Your task to perform on an android device: turn off javascript in the chrome app Image 0: 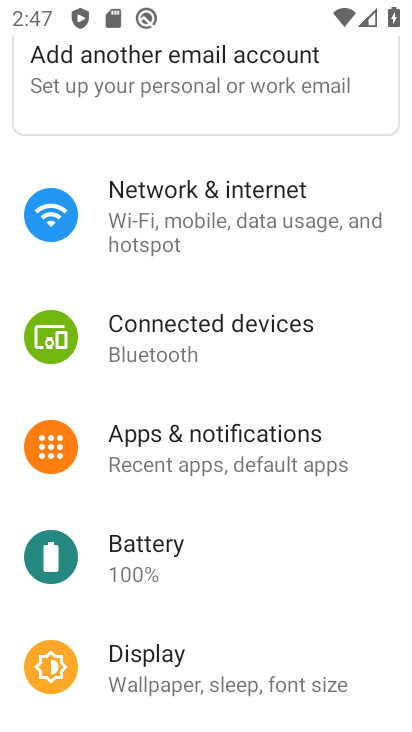
Step 0: press home button
Your task to perform on an android device: turn off javascript in the chrome app Image 1: 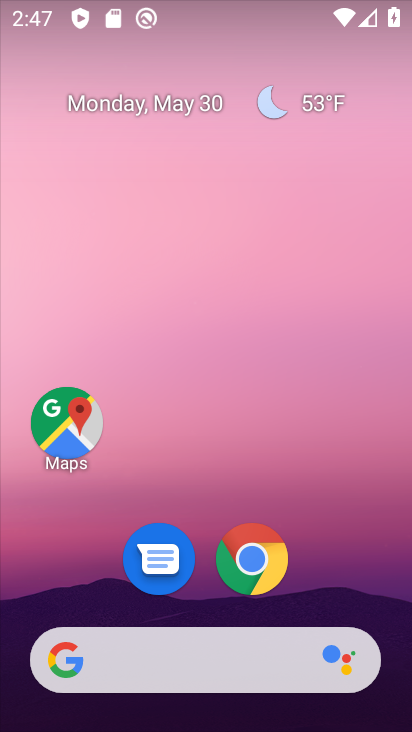
Step 1: click (238, 560)
Your task to perform on an android device: turn off javascript in the chrome app Image 2: 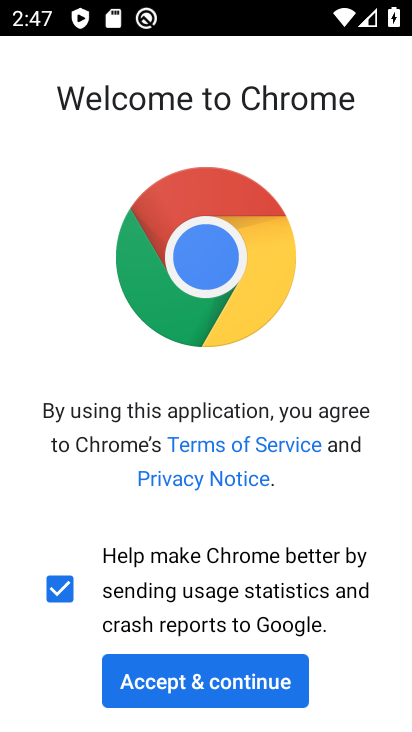
Step 2: click (198, 692)
Your task to perform on an android device: turn off javascript in the chrome app Image 3: 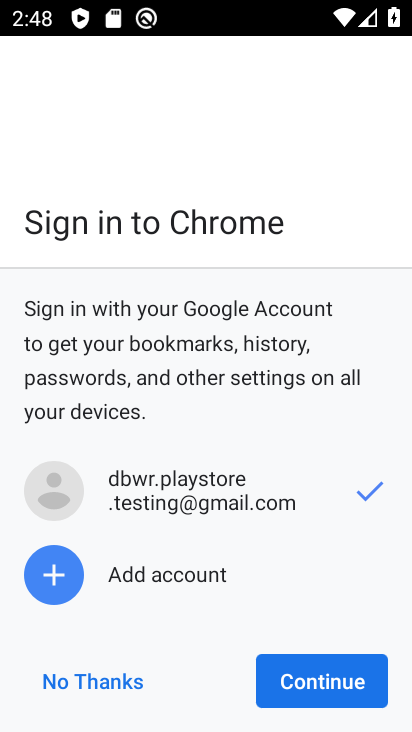
Step 3: click (322, 677)
Your task to perform on an android device: turn off javascript in the chrome app Image 4: 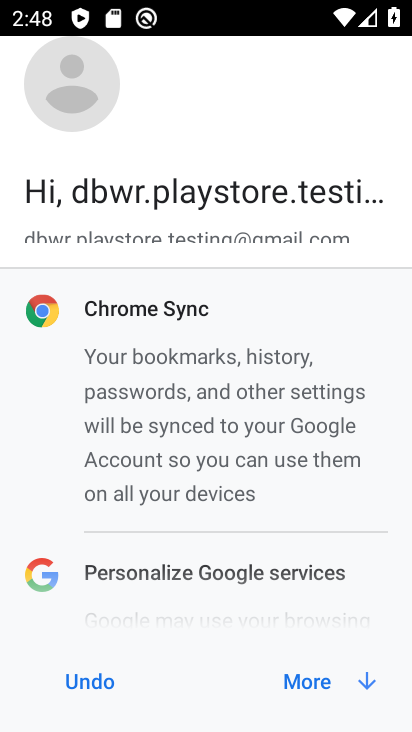
Step 4: click (318, 689)
Your task to perform on an android device: turn off javascript in the chrome app Image 5: 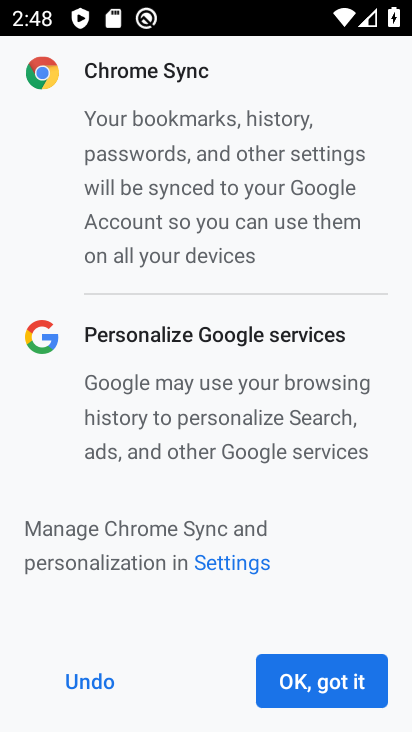
Step 5: click (319, 679)
Your task to perform on an android device: turn off javascript in the chrome app Image 6: 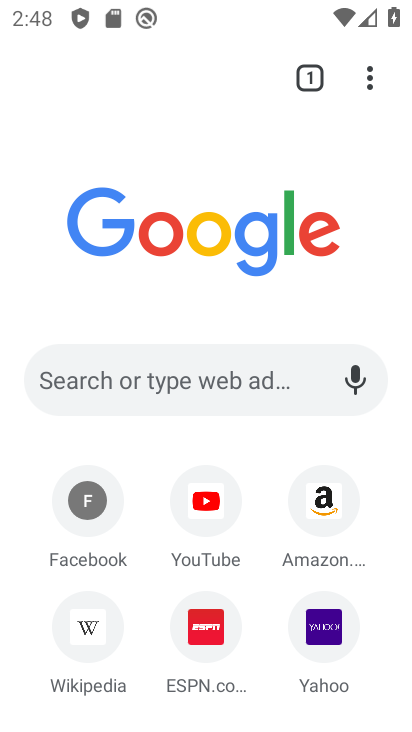
Step 6: click (375, 76)
Your task to perform on an android device: turn off javascript in the chrome app Image 7: 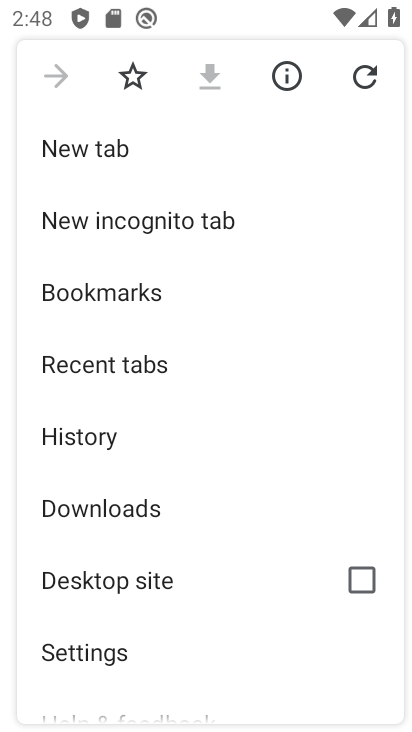
Step 7: drag from (192, 678) to (207, 228)
Your task to perform on an android device: turn off javascript in the chrome app Image 8: 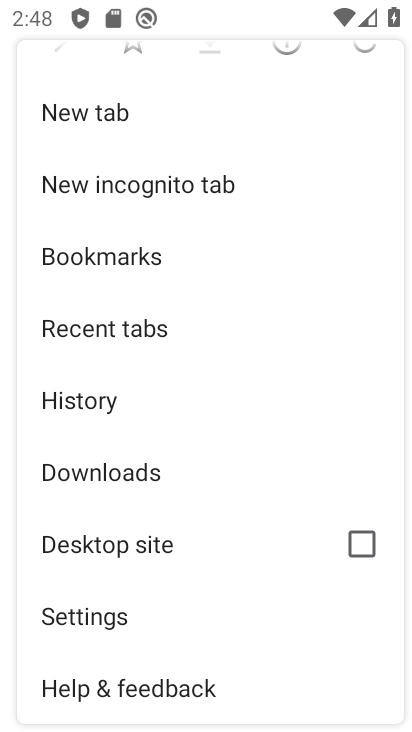
Step 8: click (99, 607)
Your task to perform on an android device: turn off javascript in the chrome app Image 9: 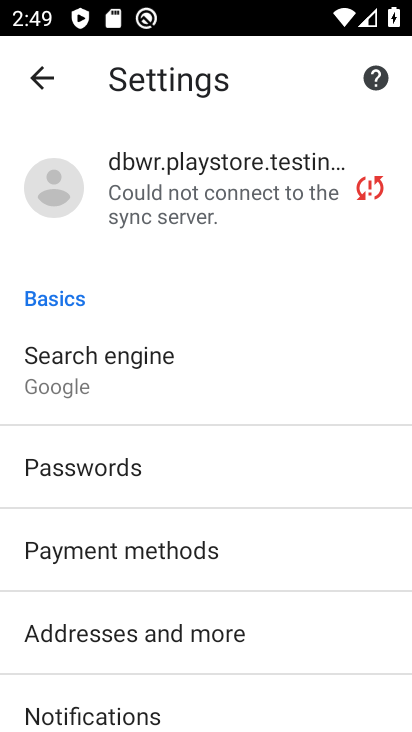
Step 9: drag from (132, 687) to (132, 350)
Your task to perform on an android device: turn off javascript in the chrome app Image 10: 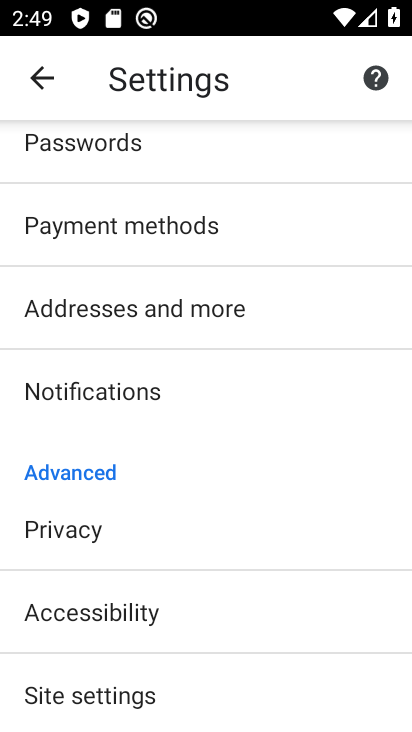
Step 10: click (44, 692)
Your task to perform on an android device: turn off javascript in the chrome app Image 11: 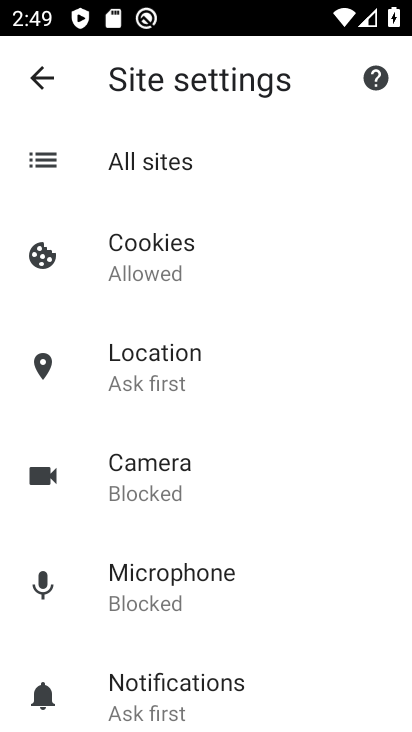
Step 11: drag from (209, 723) to (255, 386)
Your task to perform on an android device: turn off javascript in the chrome app Image 12: 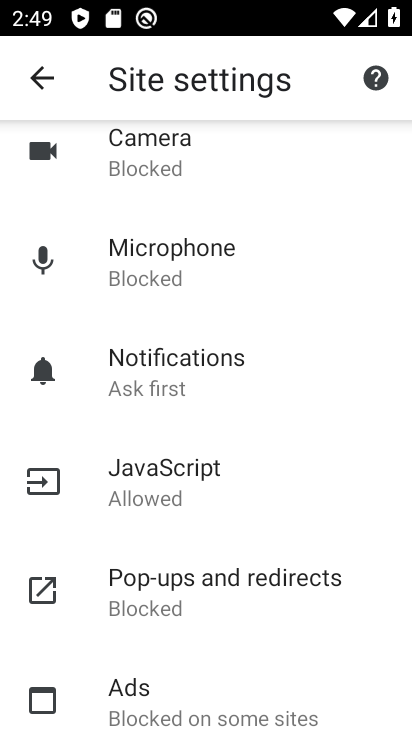
Step 12: drag from (236, 405) to (179, 469)
Your task to perform on an android device: turn off javascript in the chrome app Image 13: 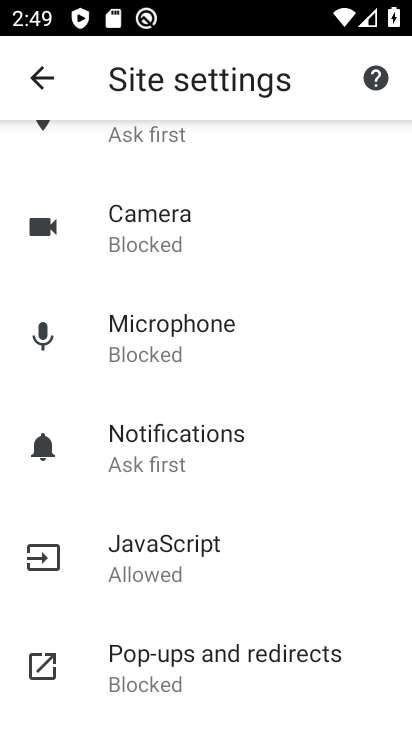
Step 13: click (184, 560)
Your task to perform on an android device: turn off javascript in the chrome app Image 14: 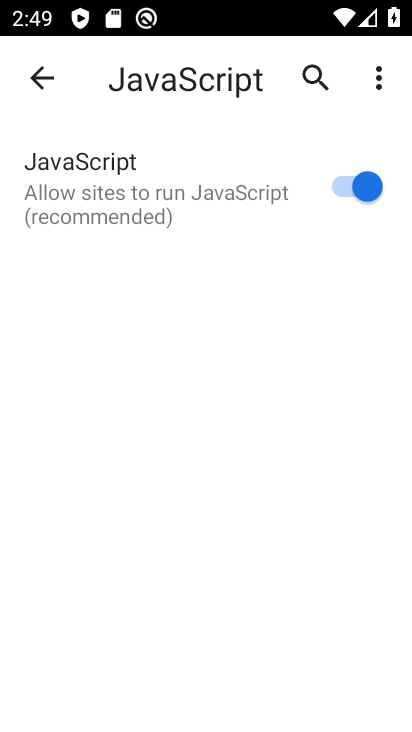
Step 14: click (340, 186)
Your task to perform on an android device: turn off javascript in the chrome app Image 15: 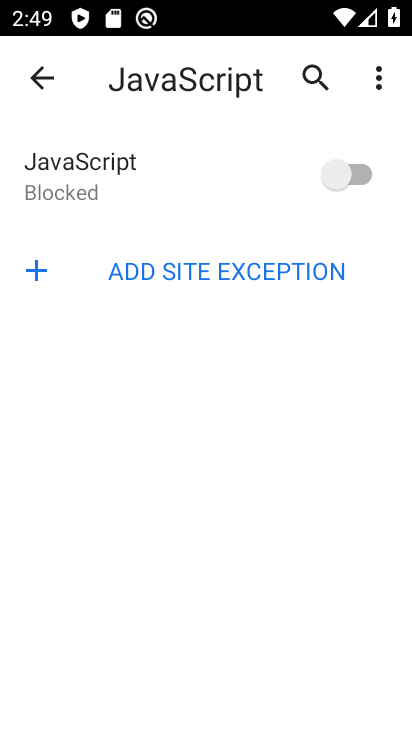
Step 15: task complete